Your task to perform on an android device: Open calendar and show me the second week of next month Image 0: 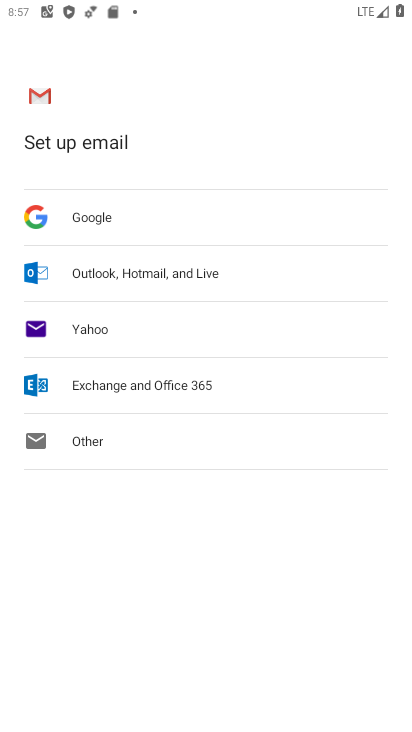
Step 0: press home button
Your task to perform on an android device: Open calendar and show me the second week of next month Image 1: 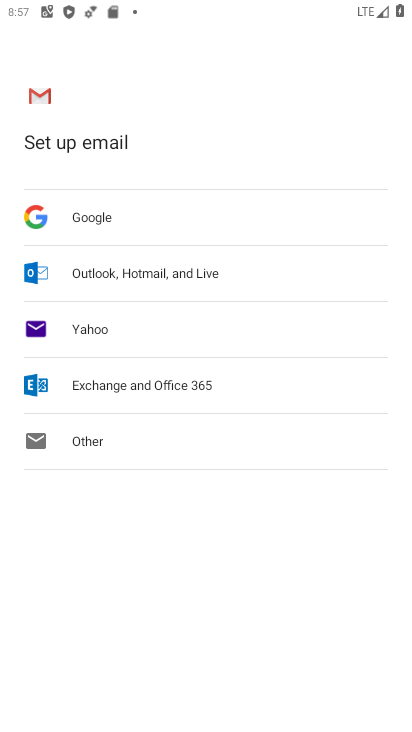
Step 1: press home button
Your task to perform on an android device: Open calendar and show me the second week of next month Image 2: 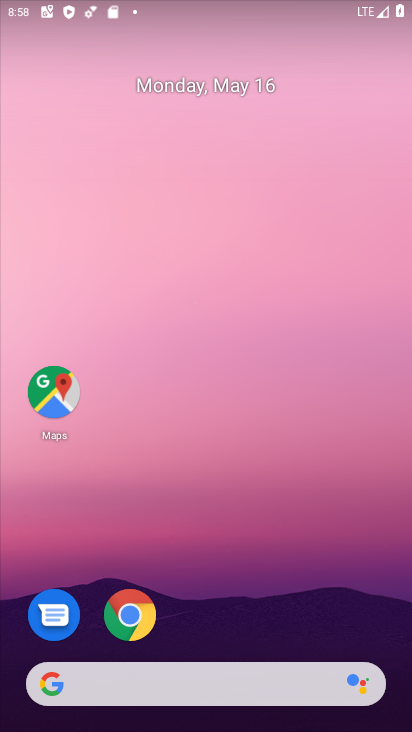
Step 2: drag from (153, 688) to (159, 1)
Your task to perform on an android device: Open calendar and show me the second week of next month Image 3: 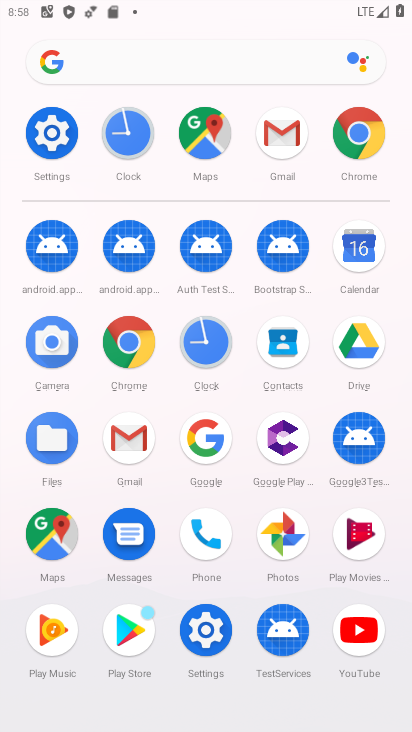
Step 3: click (373, 262)
Your task to perform on an android device: Open calendar and show me the second week of next month Image 4: 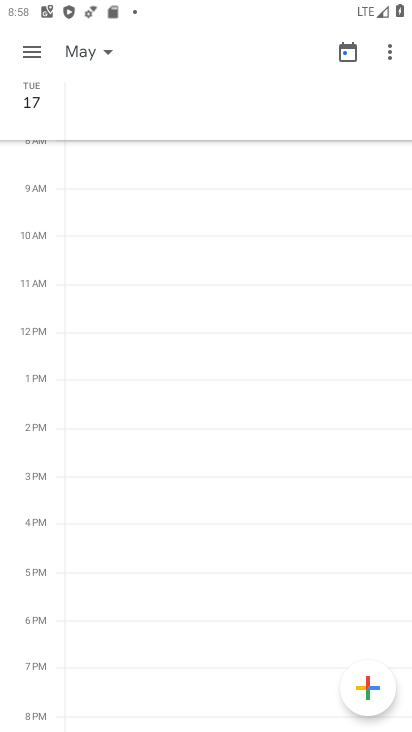
Step 4: click (71, 58)
Your task to perform on an android device: Open calendar and show me the second week of next month Image 5: 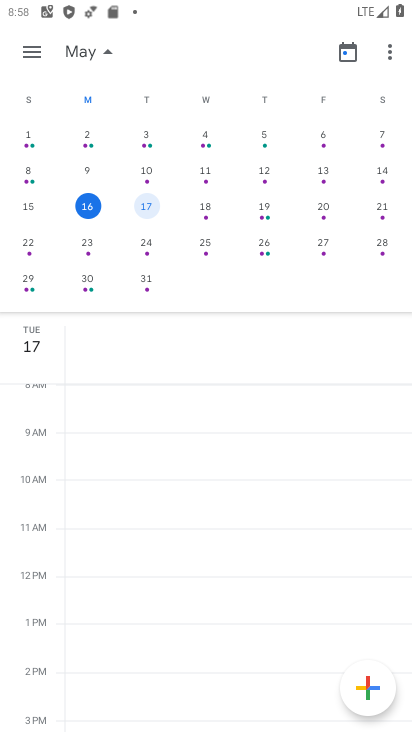
Step 5: drag from (286, 215) to (78, 3)
Your task to perform on an android device: Open calendar and show me the second week of next month Image 6: 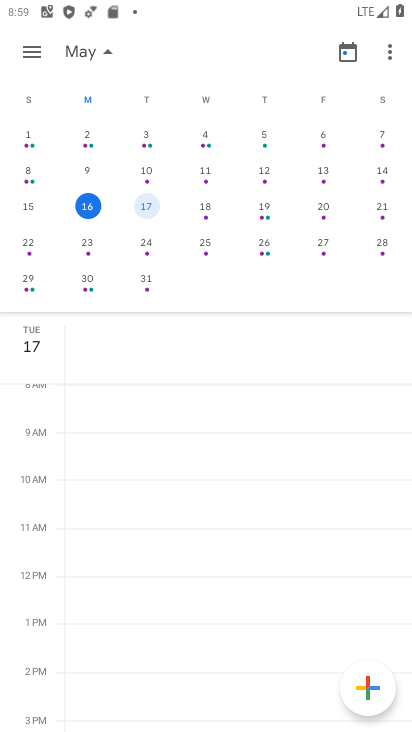
Step 6: drag from (360, 226) to (8, 574)
Your task to perform on an android device: Open calendar and show me the second week of next month Image 7: 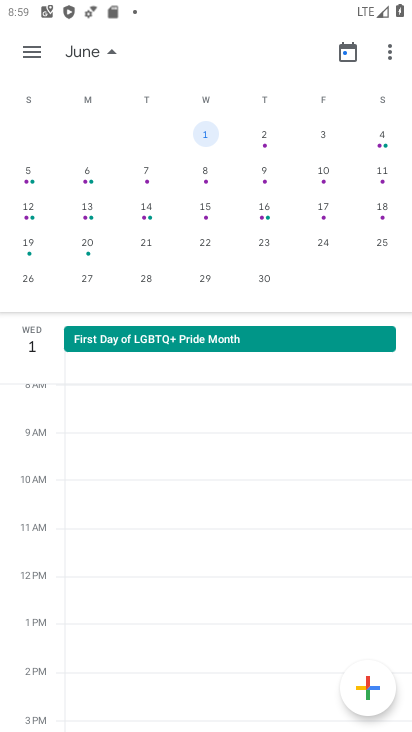
Step 7: click (36, 226)
Your task to perform on an android device: Open calendar and show me the second week of next month Image 8: 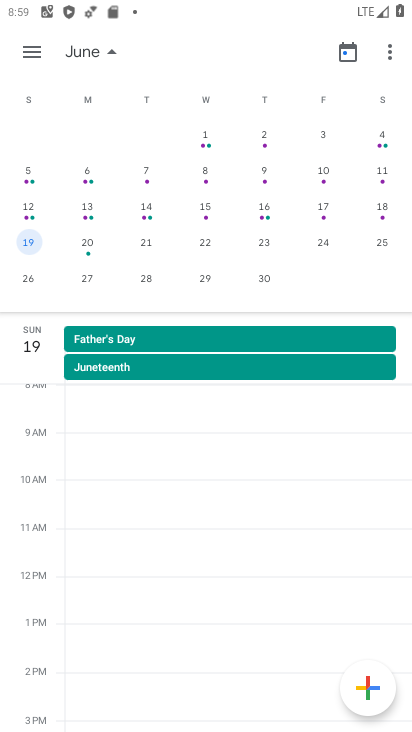
Step 8: click (32, 213)
Your task to perform on an android device: Open calendar and show me the second week of next month Image 9: 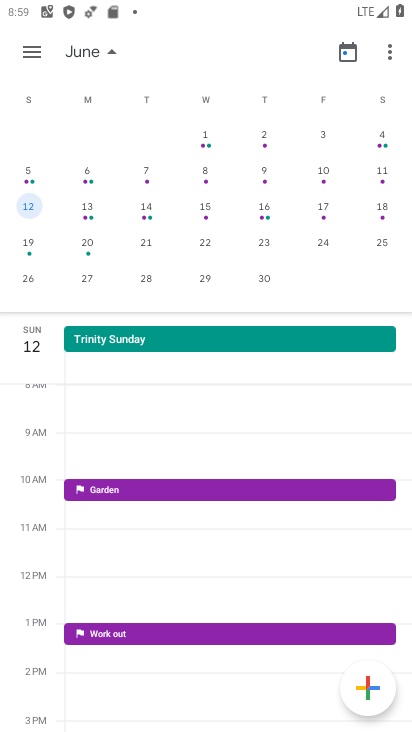
Step 9: task complete